Your task to perform on an android device: turn on showing notifications on the lock screen Image 0: 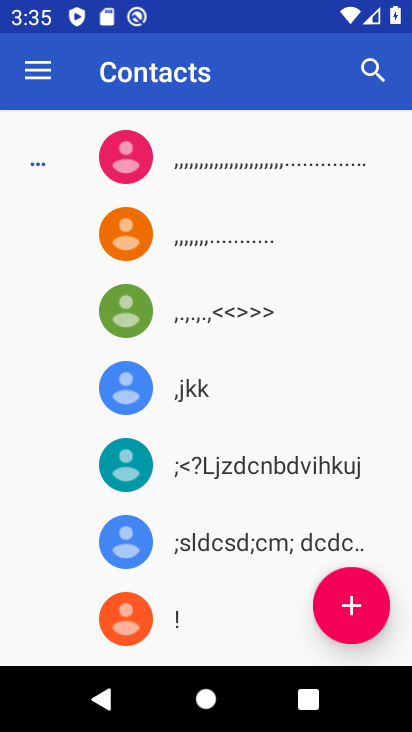
Step 0: press home button
Your task to perform on an android device: turn on showing notifications on the lock screen Image 1: 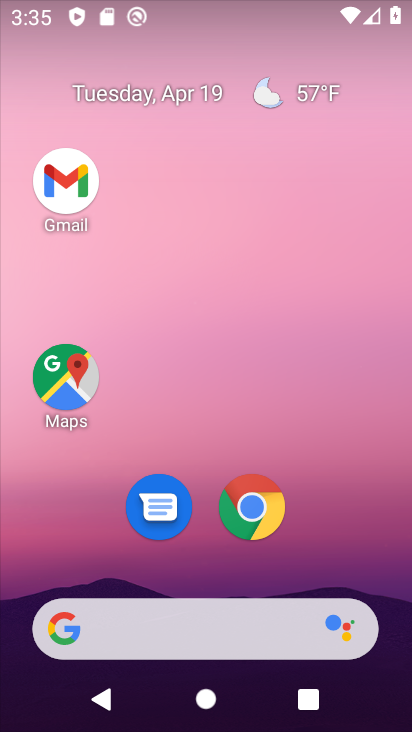
Step 1: drag from (191, 575) to (275, 164)
Your task to perform on an android device: turn on showing notifications on the lock screen Image 2: 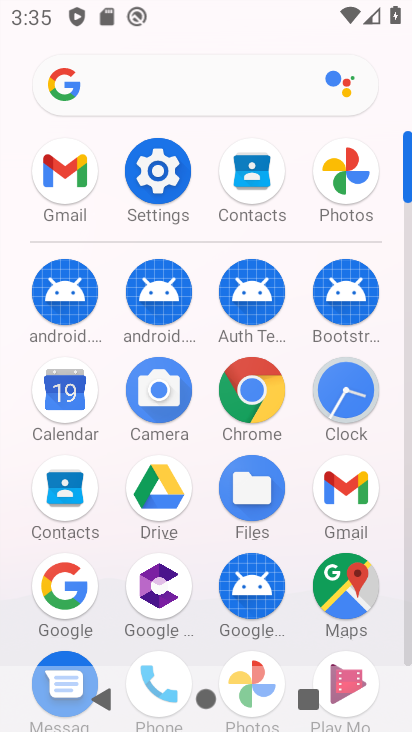
Step 2: click (156, 183)
Your task to perform on an android device: turn on showing notifications on the lock screen Image 3: 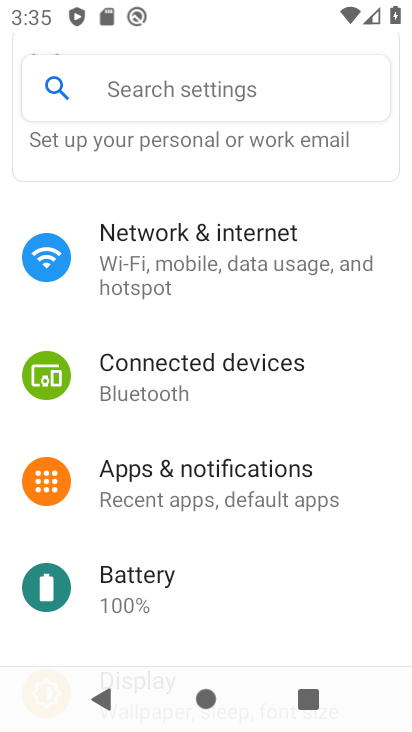
Step 3: click (116, 489)
Your task to perform on an android device: turn on showing notifications on the lock screen Image 4: 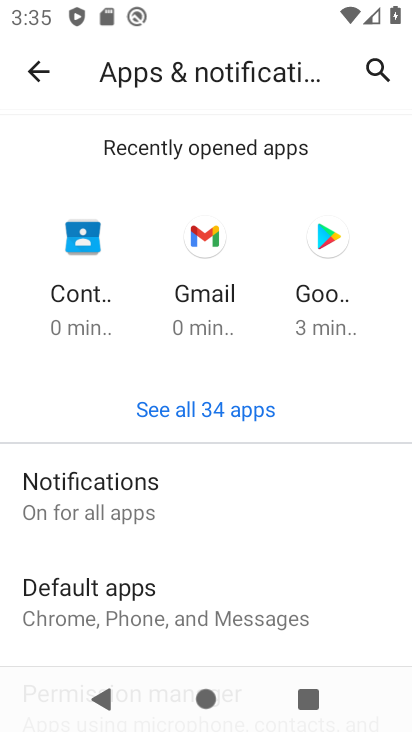
Step 4: click (116, 489)
Your task to perform on an android device: turn on showing notifications on the lock screen Image 5: 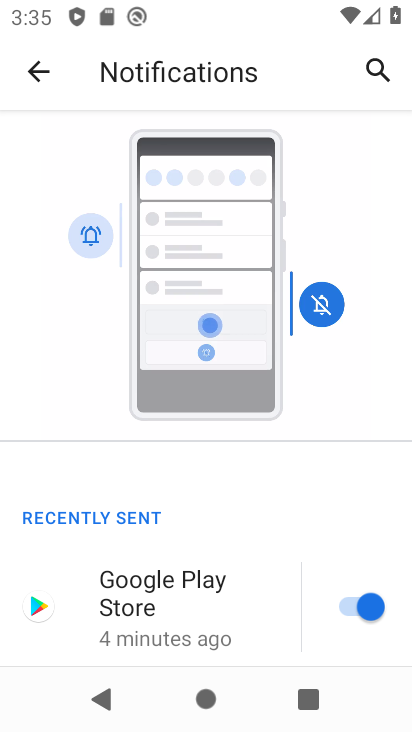
Step 5: drag from (213, 552) to (306, 128)
Your task to perform on an android device: turn on showing notifications on the lock screen Image 6: 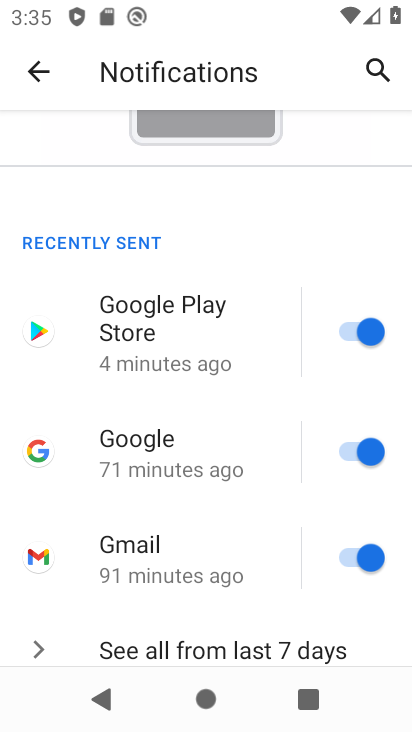
Step 6: drag from (192, 596) to (276, 188)
Your task to perform on an android device: turn on showing notifications on the lock screen Image 7: 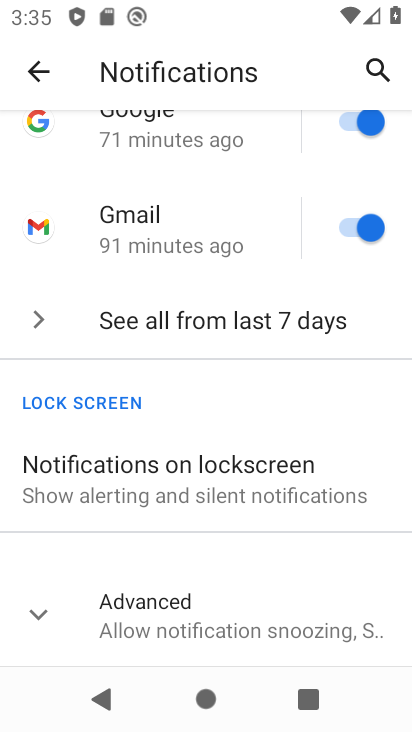
Step 7: click (207, 476)
Your task to perform on an android device: turn on showing notifications on the lock screen Image 8: 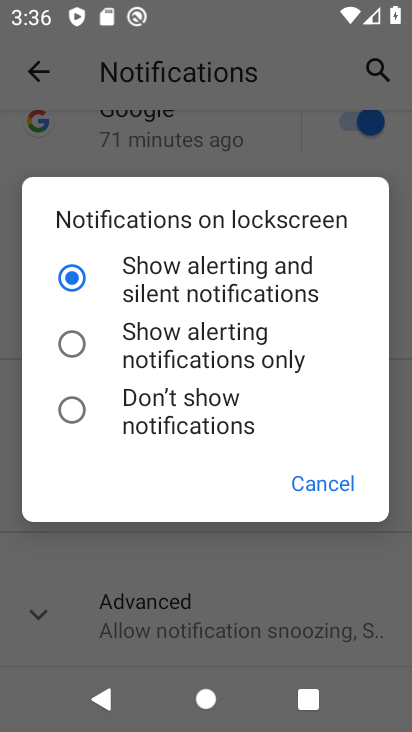
Step 8: task complete